Your task to perform on an android device: delete a single message in the gmail app Image 0: 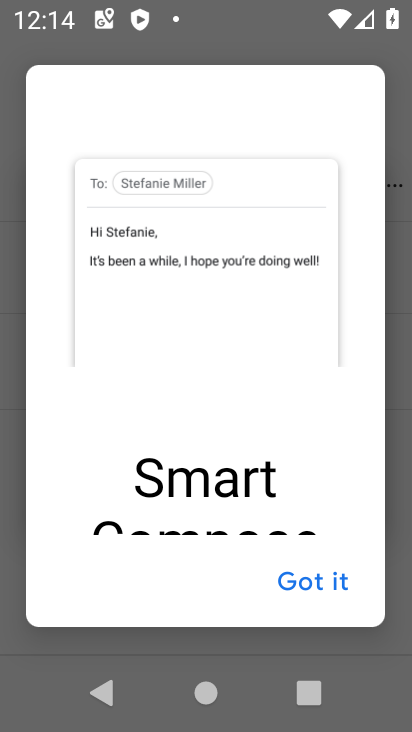
Step 0: press home button
Your task to perform on an android device: delete a single message in the gmail app Image 1: 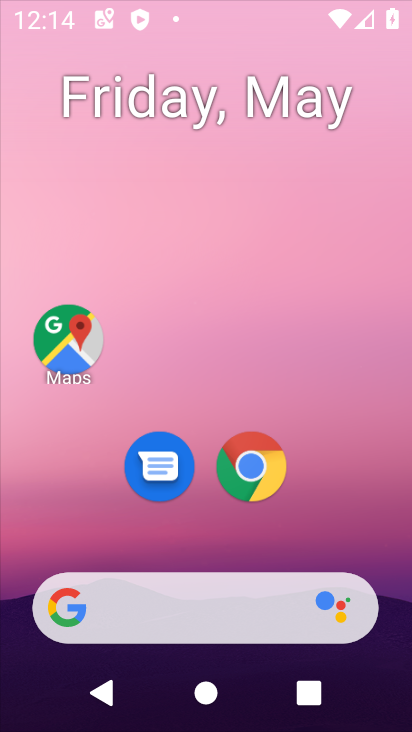
Step 1: drag from (387, 644) to (180, 82)
Your task to perform on an android device: delete a single message in the gmail app Image 2: 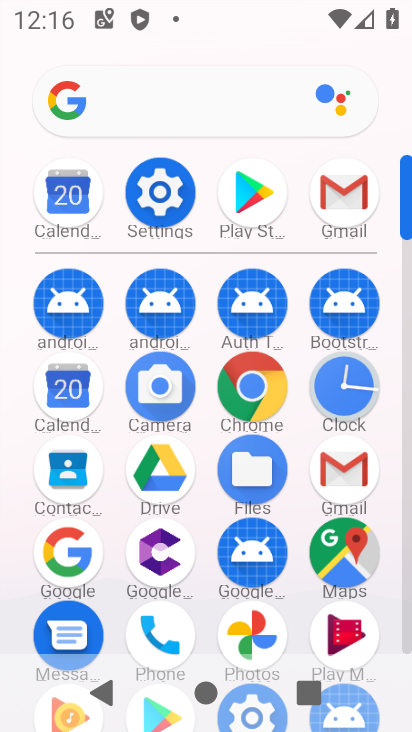
Step 2: click (359, 469)
Your task to perform on an android device: delete a single message in the gmail app Image 3: 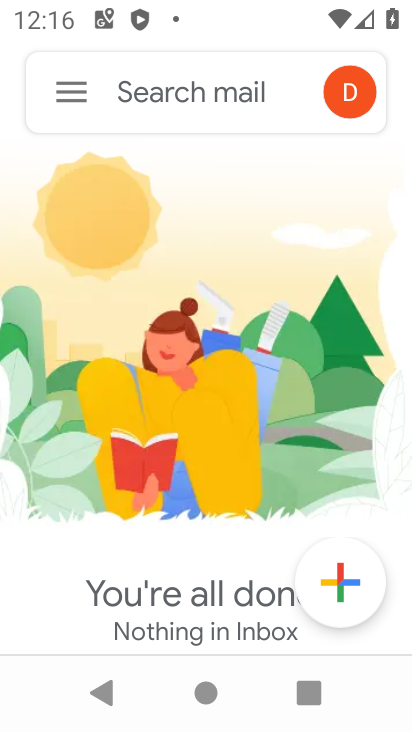
Step 3: click (66, 82)
Your task to perform on an android device: delete a single message in the gmail app Image 4: 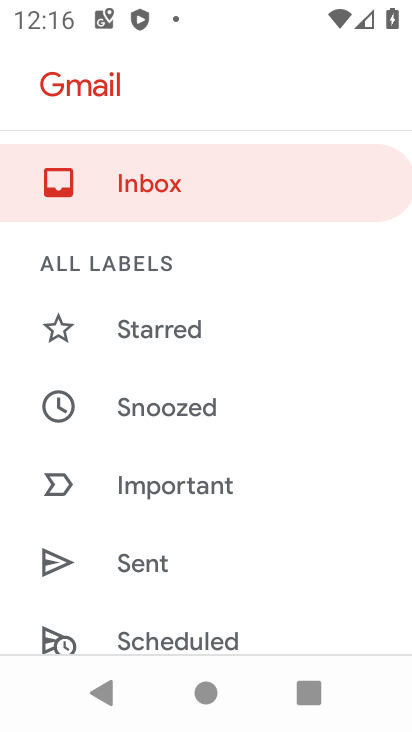
Step 4: task complete